Your task to perform on an android device: Set the phone to "Do not disturb". Image 0: 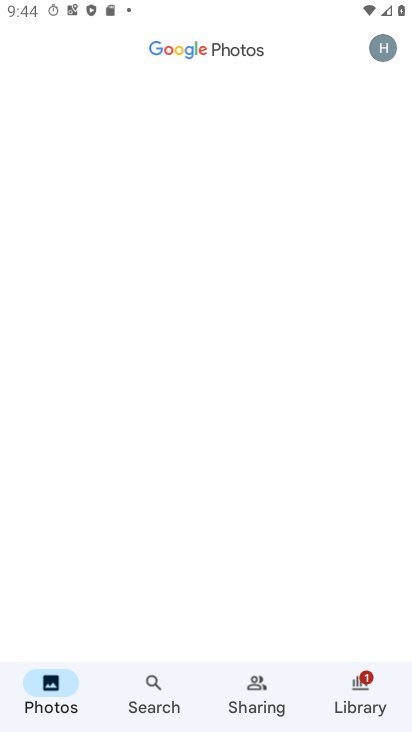
Step 0: drag from (179, 343) to (185, 287)
Your task to perform on an android device: Set the phone to "Do not disturb". Image 1: 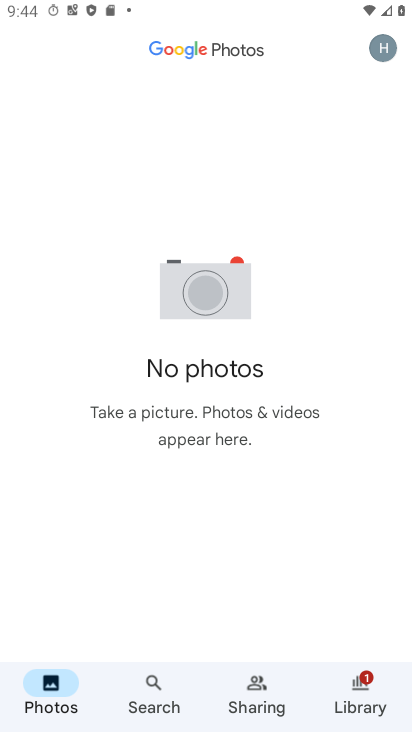
Step 1: press home button
Your task to perform on an android device: Set the phone to "Do not disturb". Image 2: 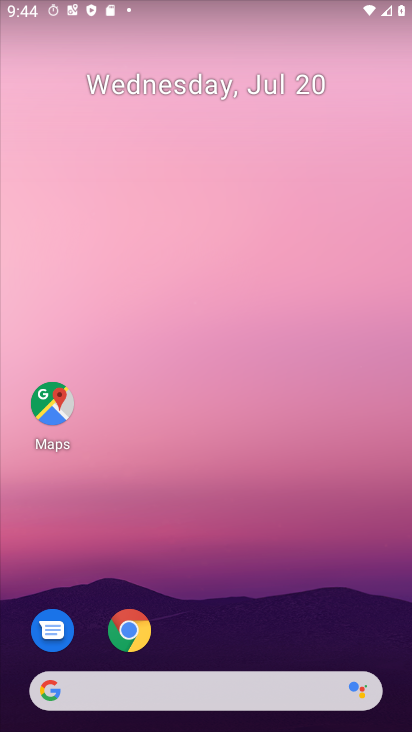
Step 2: drag from (253, 573) to (242, 251)
Your task to perform on an android device: Set the phone to "Do not disturb". Image 3: 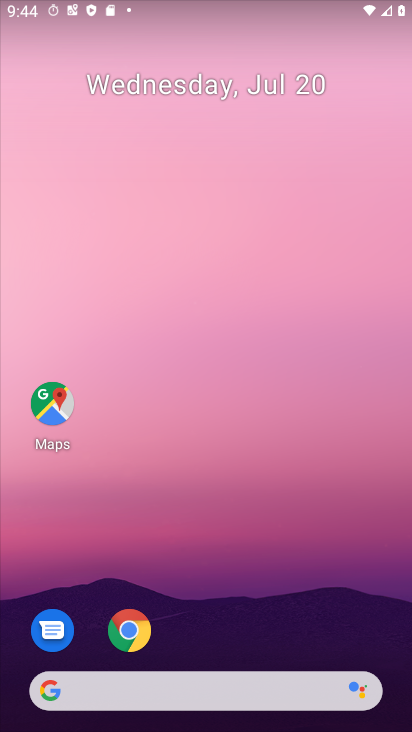
Step 3: click (213, 387)
Your task to perform on an android device: Set the phone to "Do not disturb". Image 4: 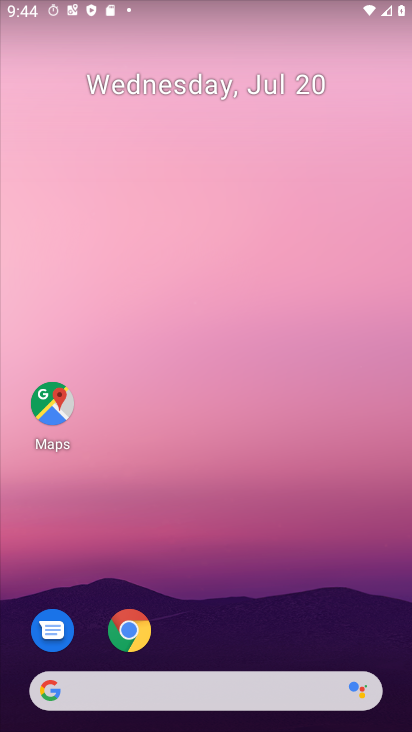
Step 4: drag from (160, 11) to (38, 589)
Your task to perform on an android device: Set the phone to "Do not disturb". Image 5: 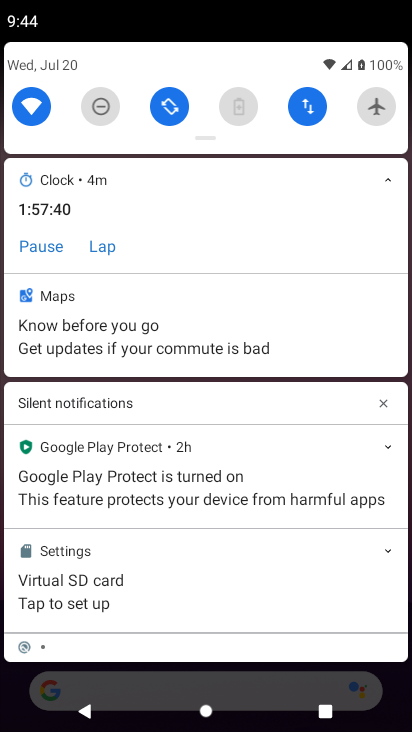
Step 5: click (100, 113)
Your task to perform on an android device: Set the phone to "Do not disturb". Image 6: 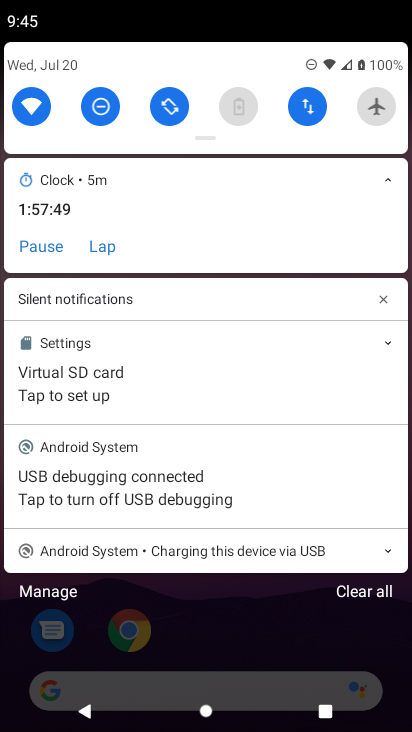
Step 6: task complete